Your task to perform on an android device: set the stopwatch Image 0: 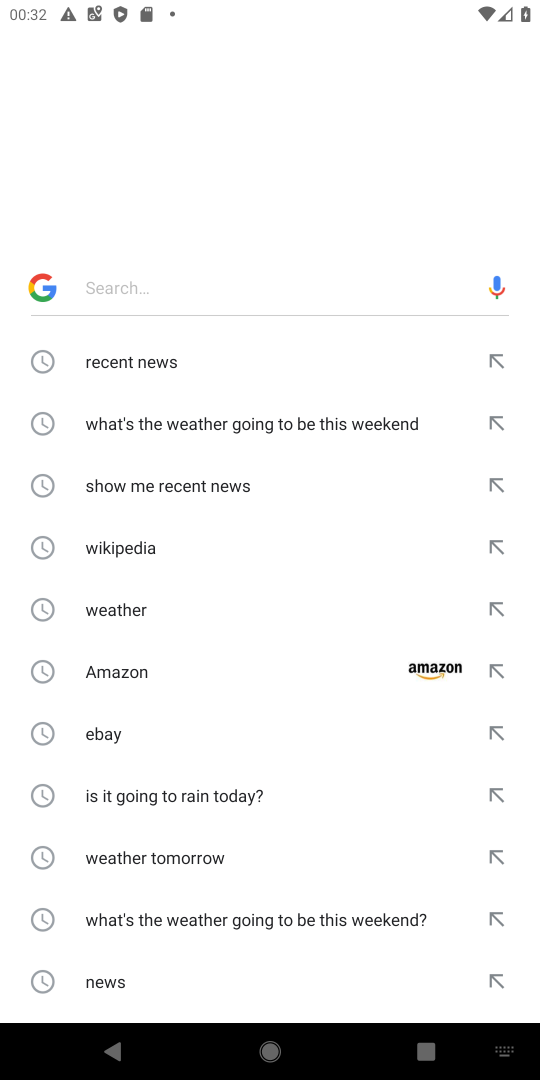
Step 0: press home button
Your task to perform on an android device: set the stopwatch Image 1: 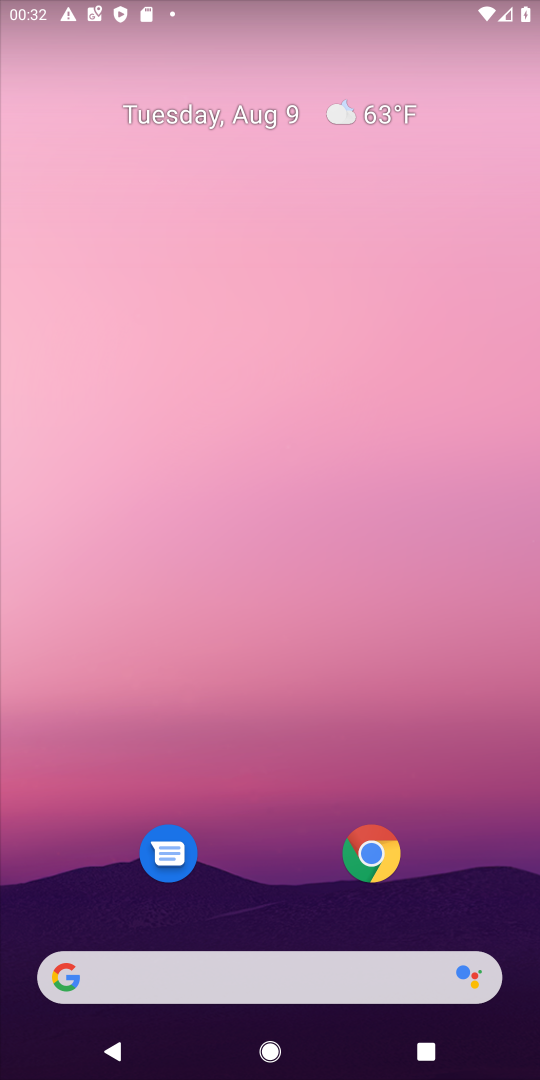
Step 1: drag from (283, 893) to (277, 331)
Your task to perform on an android device: set the stopwatch Image 2: 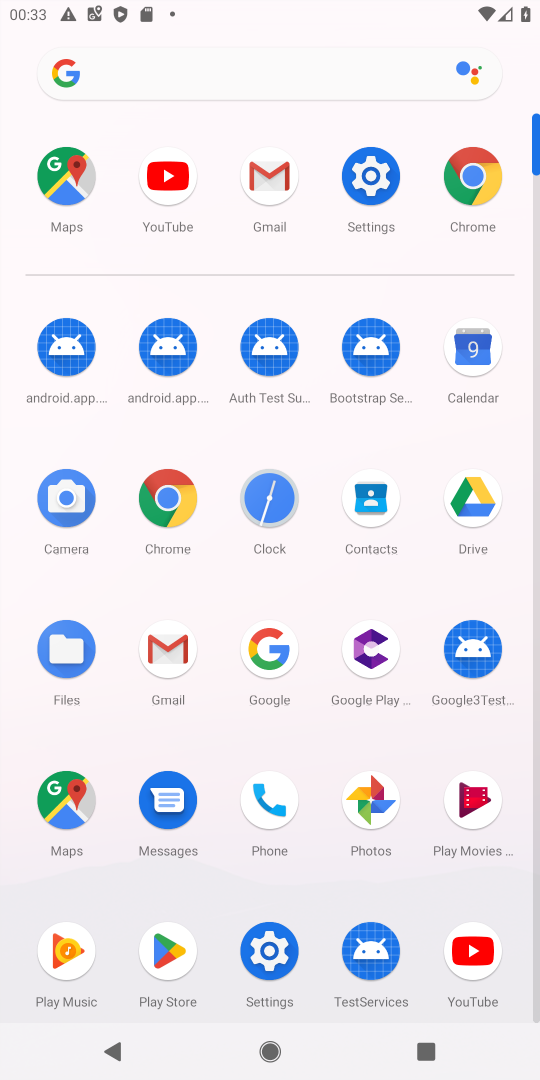
Step 2: click (269, 488)
Your task to perform on an android device: set the stopwatch Image 3: 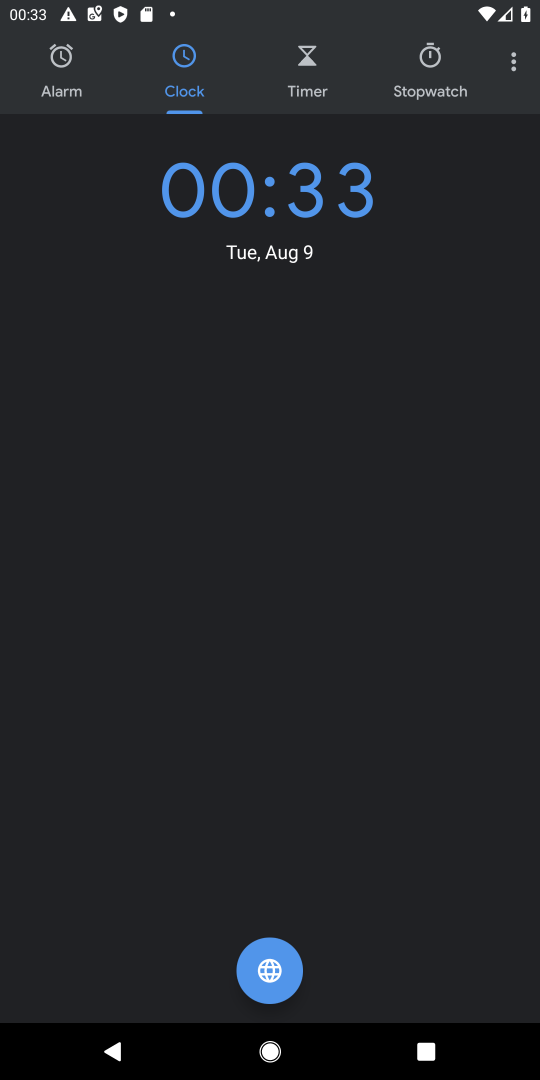
Step 3: click (394, 79)
Your task to perform on an android device: set the stopwatch Image 4: 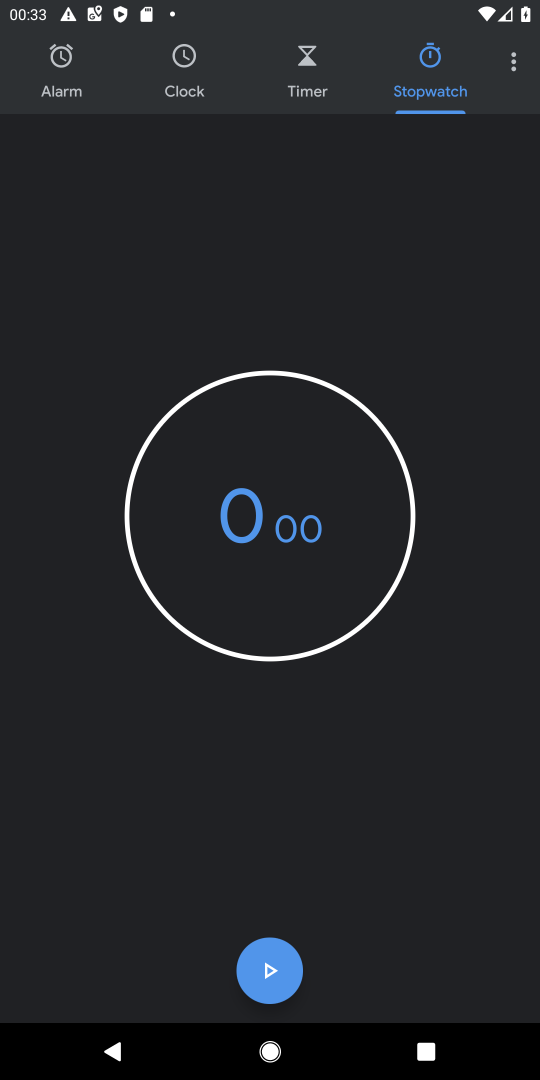
Step 4: click (266, 972)
Your task to perform on an android device: set the stopwatch Image 5: 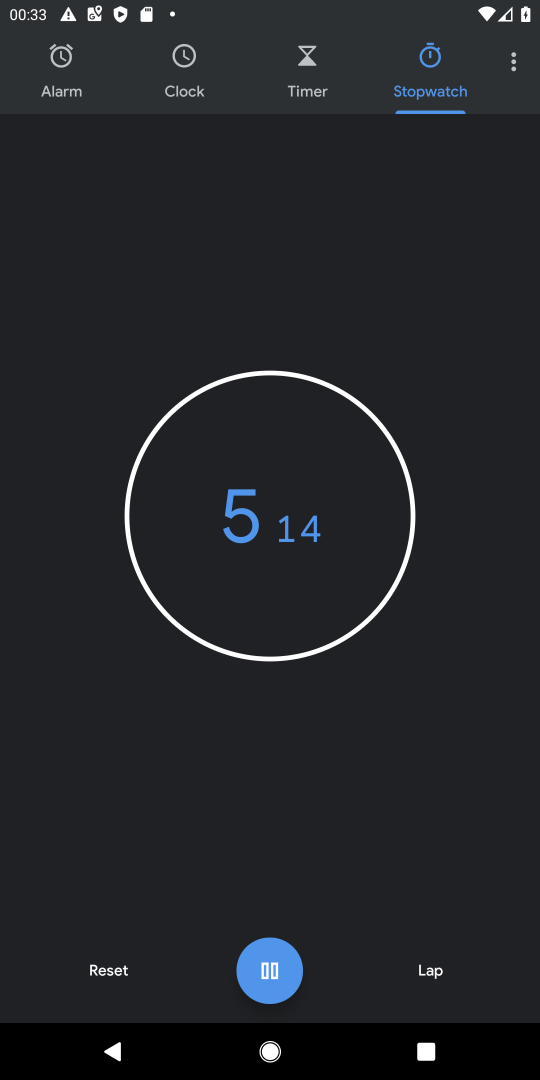
Step 5: task complete